Your task to perform on an android device: What's on my calendar today? Image 0: 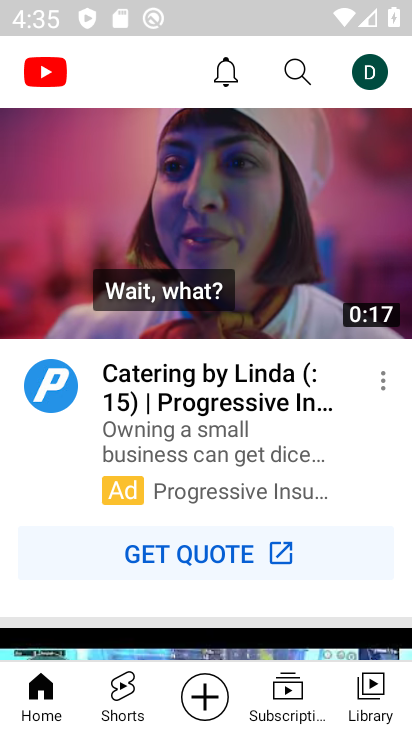
Step 0: press home button
Your task to perform on an android device: What's on my calendar today? Image 1: 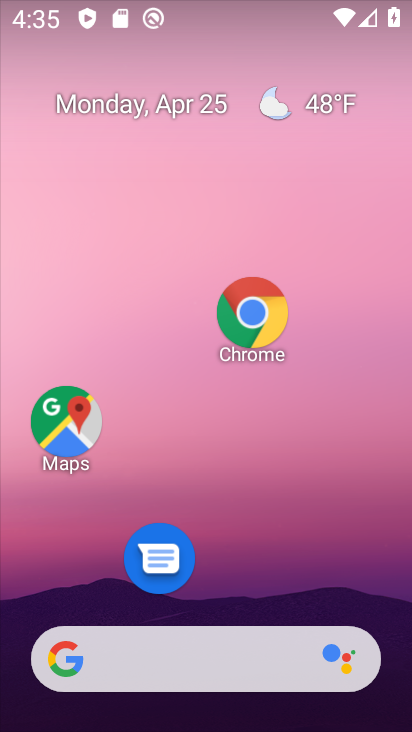
Step 1: drag from (336, 535) to (328, 118)
Your task to perform on an android device: What's on my calendar today? Image 2: 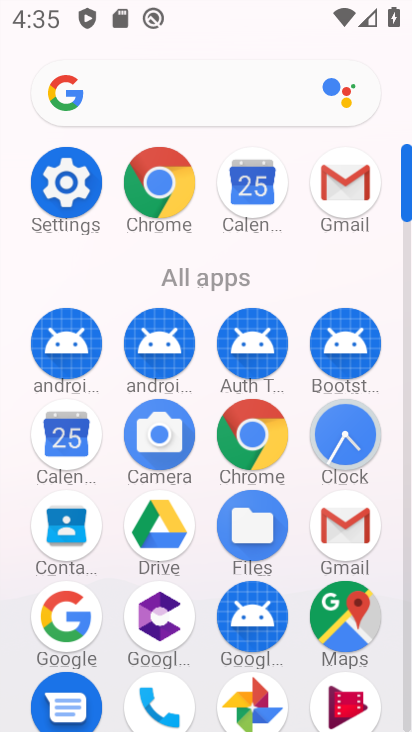
Step 2: click (51, 447)
Your task to perform on an android device: What's on my calendar today? Image 3: 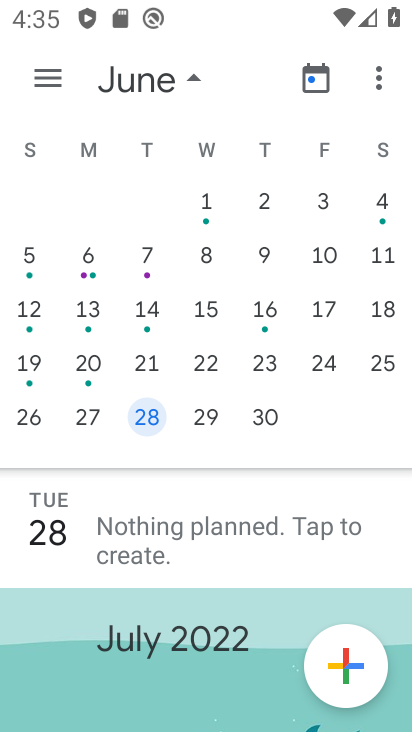
Step 3: task complete